Your task to perform on an android device: clear all cookies in the chrome app Image 0: 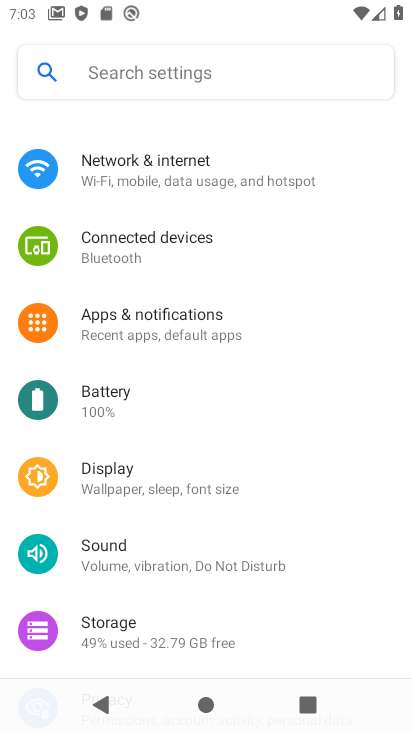
Step 0: press home button
Your task to perform on an android device: clear all cookies in the chrome app Image 1: 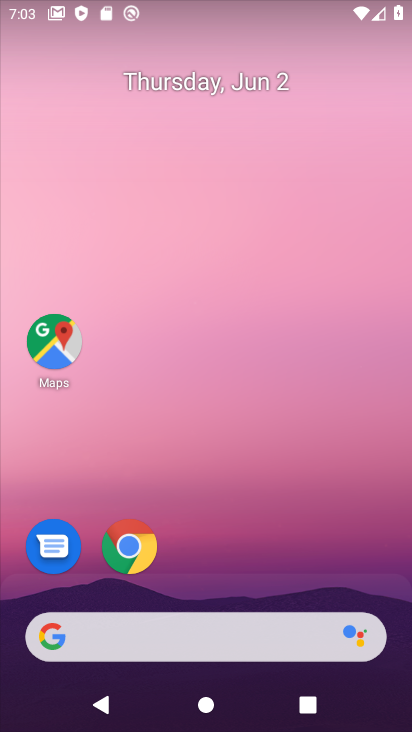
Step 1: drag from (230, 669) to (263, 121)
Your task to perform on an android device: clear all cookies in the chrome app Image 2: 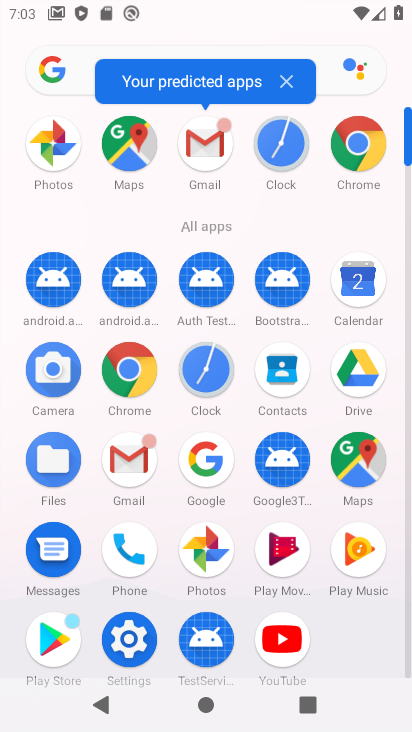
Step 2: click (364, 157)
Your task to perform on an android device: clear all cookies in the chrome app Image 3: 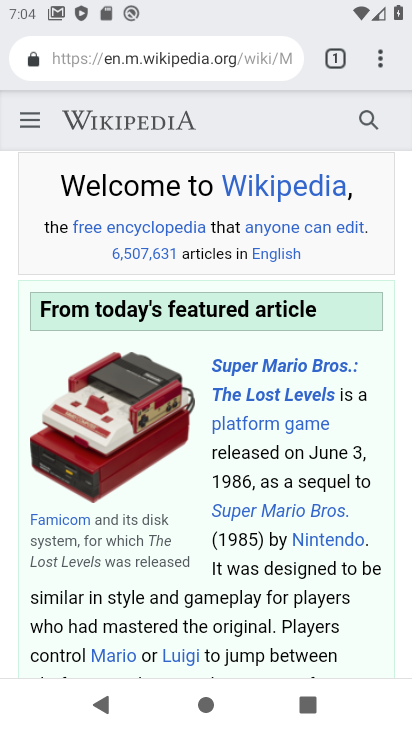
Step 3: click (372, 54)
Your task to perform on an android device: clear all cookies in the chrome app Image 4: 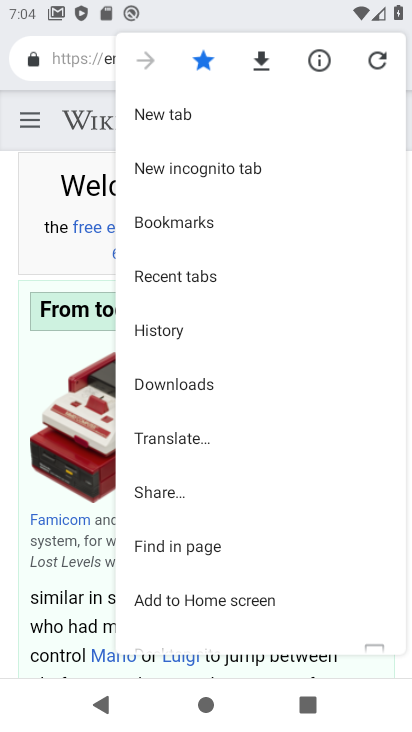
Step 4: drag from (172, 626) to (222, 486)
Your task to perform on an android device: clear all cookies in the chrome app Image 5: 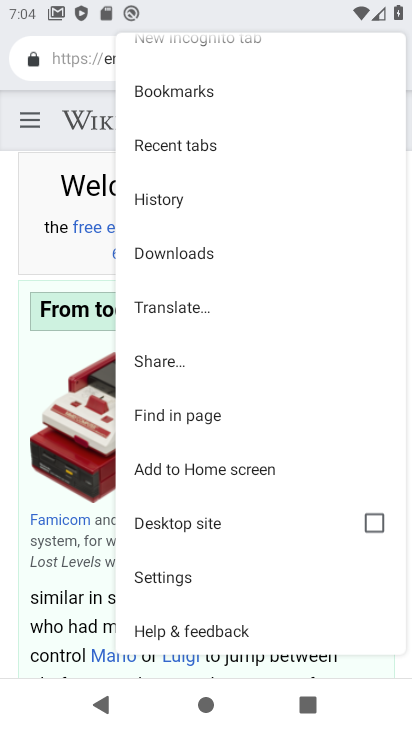
Step 5: click (159, 581)
Your task to perform on an android device: clear all cookies in the chrome app Image 6: 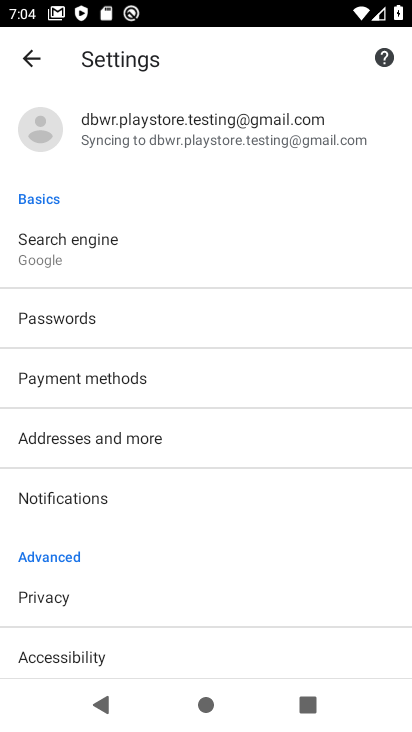
Step 6: click (59, 597)
Your task to perform on an android device: clear all cookies in the chrome app Image 7: 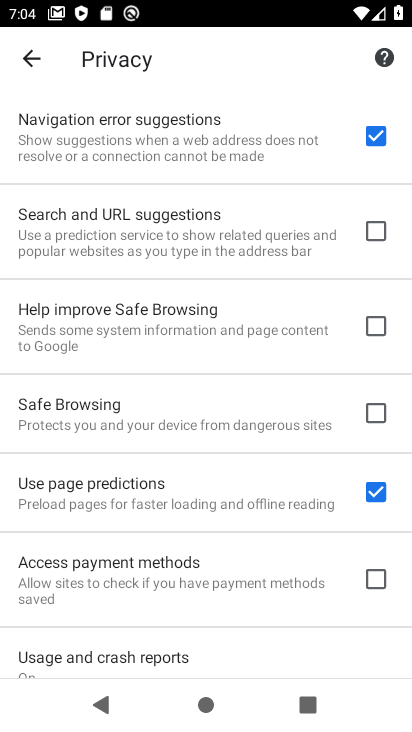
Step 7: drag from (140, 620) to (227, 154)
Your task to perform on an android device: clear all cookies in the chrome app Image 8: 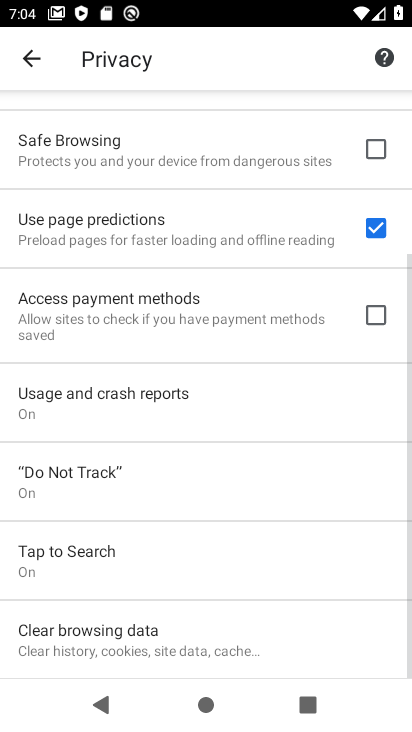
Step 8: click (144, 643)
Your task to perform on an android device: clear all cookies in the chrome app Image 9: 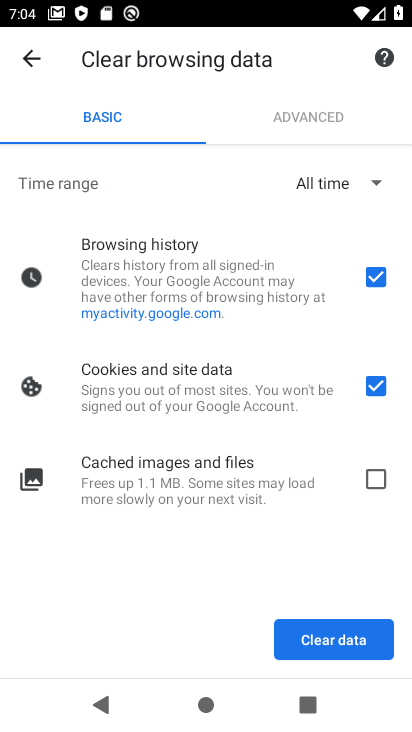
Step 9: click (375, 268)
Your task to perform on an android device: clear all cookies in the chrome app Image 10: 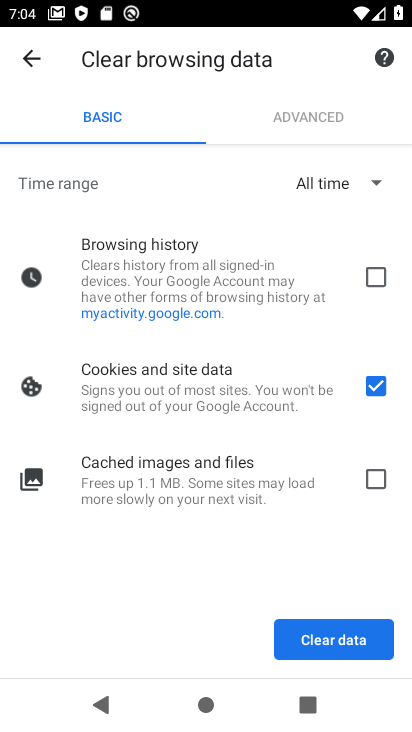
Step 10: click (354, 633)
Your task to perform on an android device: clear all cookies in the chrome app Image 11: 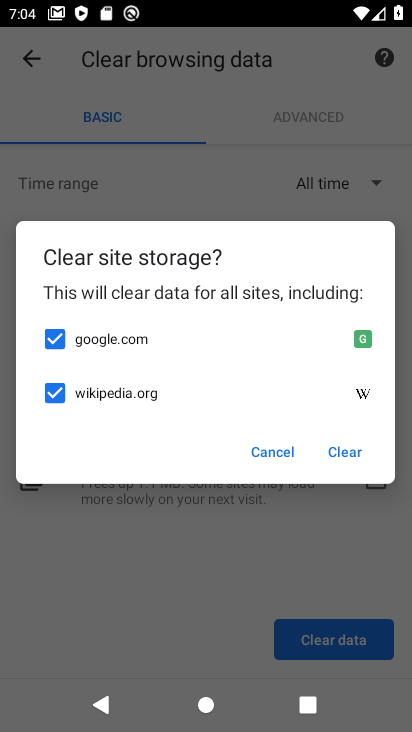
Step 11: click (351, 456)
Your task to perform on an android device: clear all cookies in the chrome app Image 12: 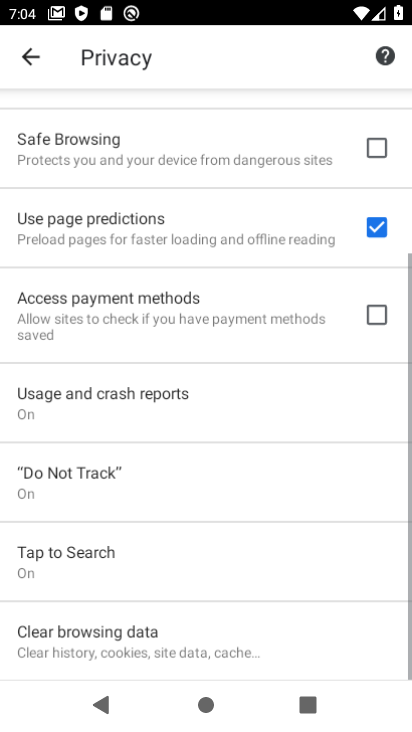
Step 12: task complete